Your task to perform on an android device: turn off data saver in the chrome app Image 0: 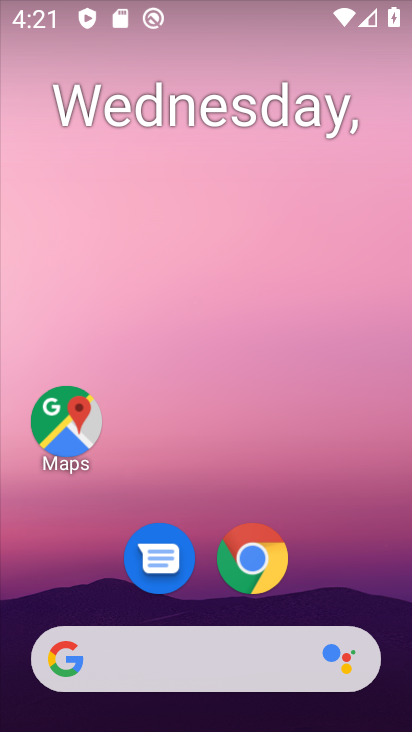
Step 0: drag from (330, 573) to (353, 244)
Your task to perform on an android device: turn off data saver in the chrome app Image 1: 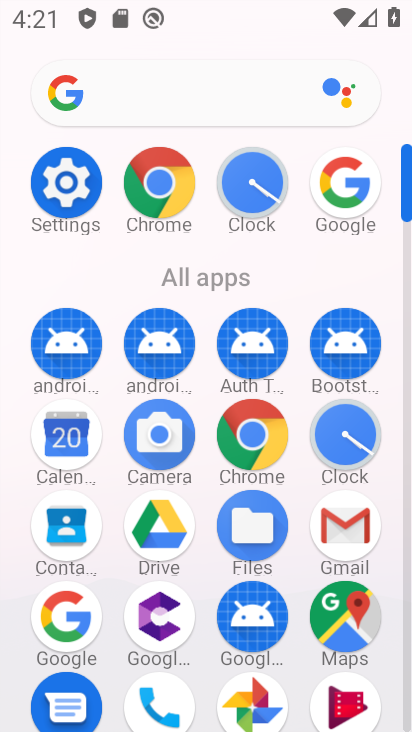
Step 1: click (258, 450)
Your task to perform on an android device: turn off data saver in the chrome app Image 2: 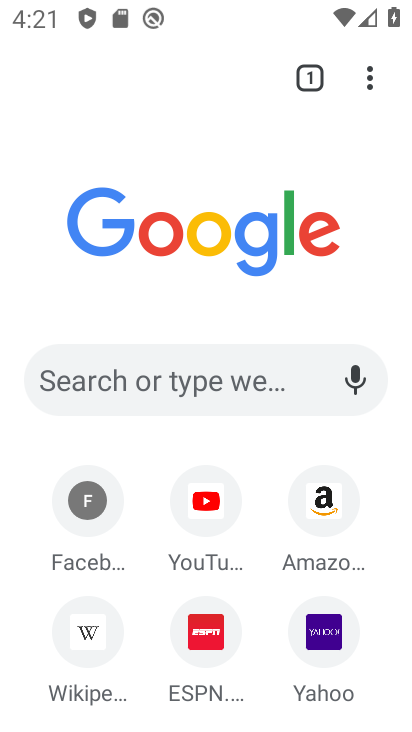
Step 2: click (371, 75)
Your task to perform on an android device: turn off data saver in the chrome app Image 3: 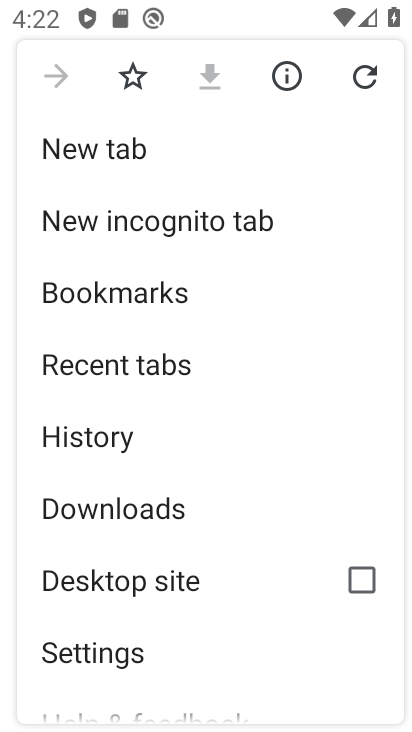
Step 3: drag from (276, 527) to (264, 277)
Your task to perform on an android device: turn off data saver in the chrome app Image 4: 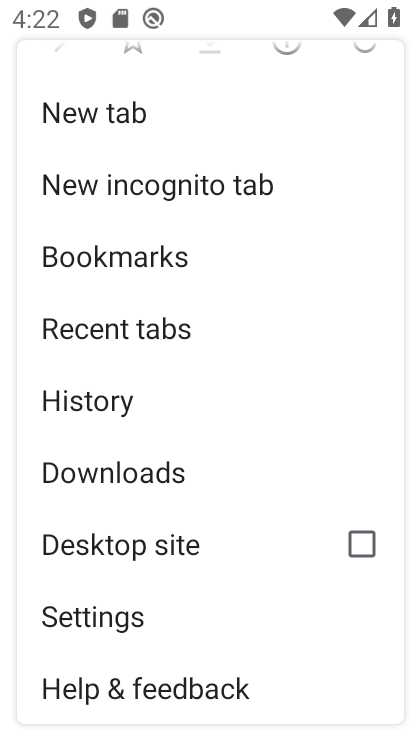
Step 4: click (115, 645)
Your task to perform on an android device: turn off data saver in the chrome app Image 5: 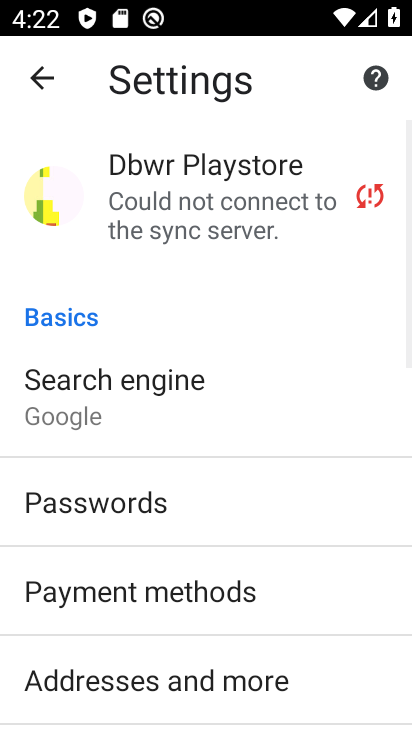
Step 5: drag from (321, 623) to (324, 504)
Your task to perform on an android device: turn off data saver in the chrome app Image 6: 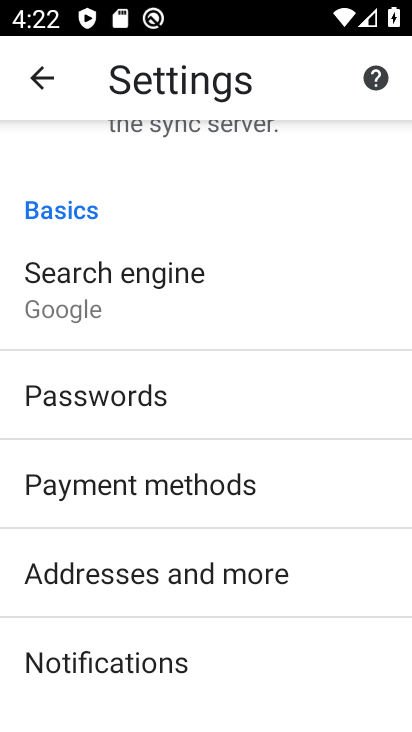
Step 6: drag from (325, 617) to (337, 513)
Your task to perform on an android device: turn off data saver in the chrome app Image 7: 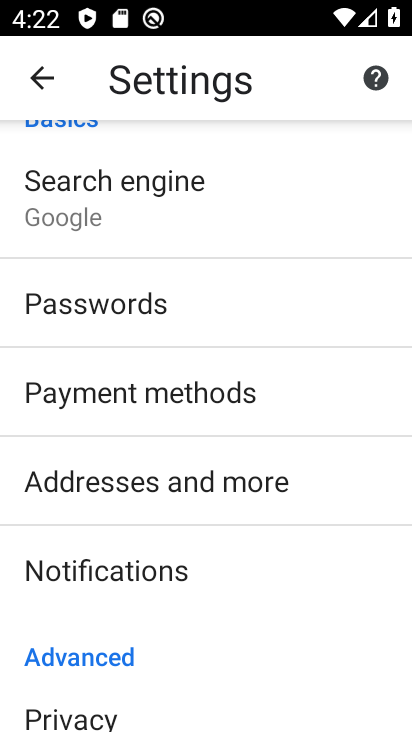
Step 7: drag from (312, 643) to (321, 495)
Your task to perform on an android device: turn off data saver in the chrome app Image 8: 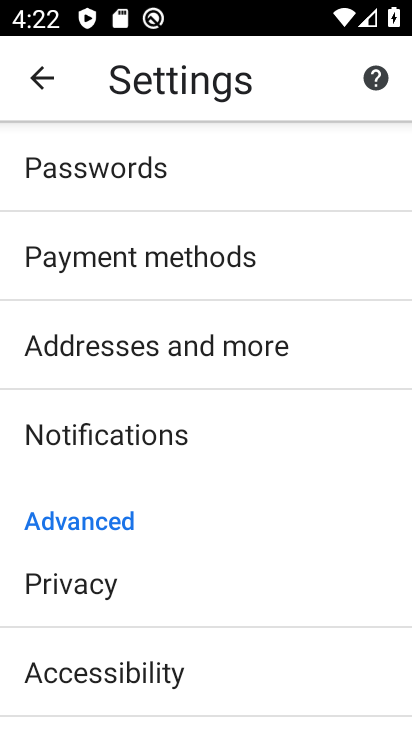
Step 8: drag from (300, 646) to (321, 550)
Your task to perform on an android device: turn off data saver in the chrome app Image 9: 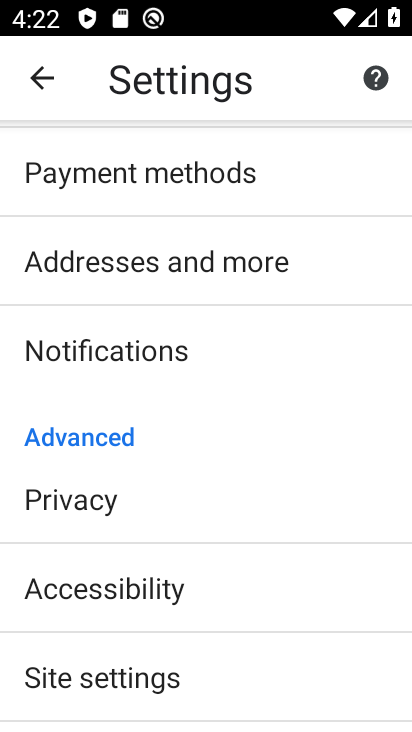
Step 9: drag from (303, 668) to (306, 527)
Your task to perform on an android device: turn off data saver in the chrome app Image 10: 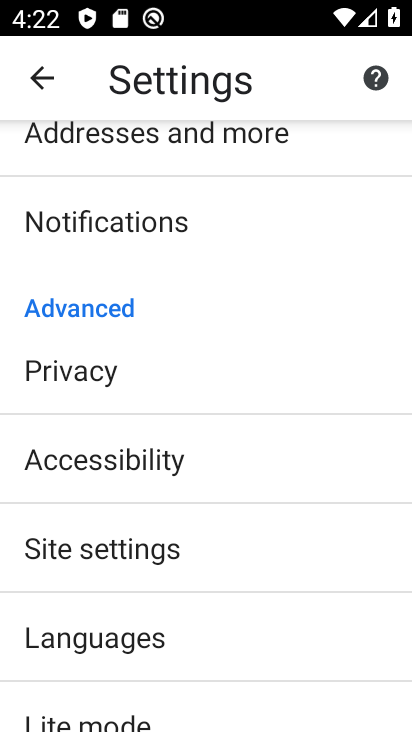
Step 10: drag from (196, 650) to (230, 537)
Your task to perform on an android device: turn off data saver in the chrome app Image 11: 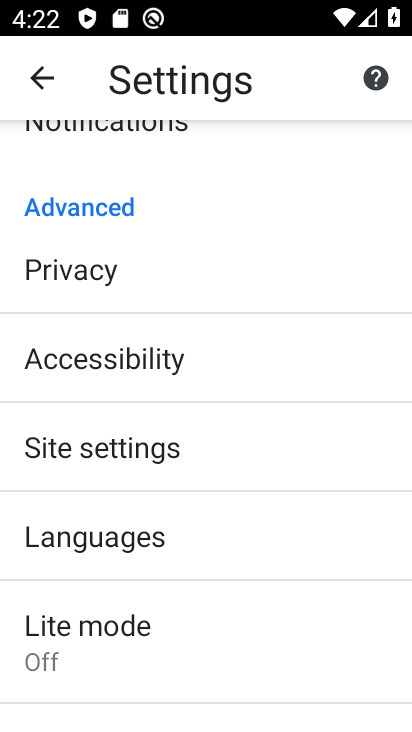
Step 11: click (167, 638)
Your task to perform on an android device: turn off data saver in the chrome app Image 12: 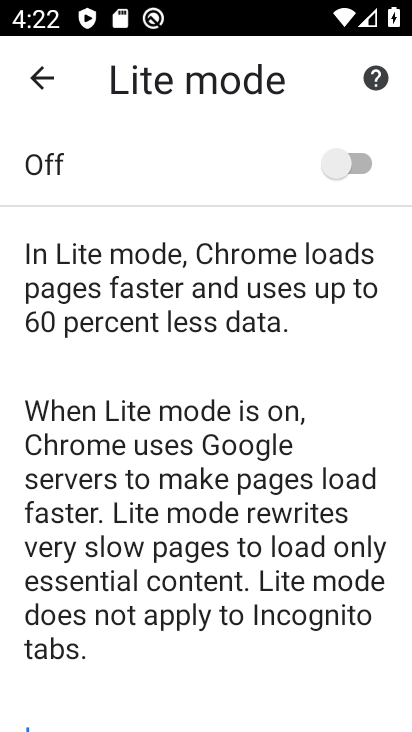
Step 12: task complete